Your task to perform on an android device: What's the weather? Image 0: 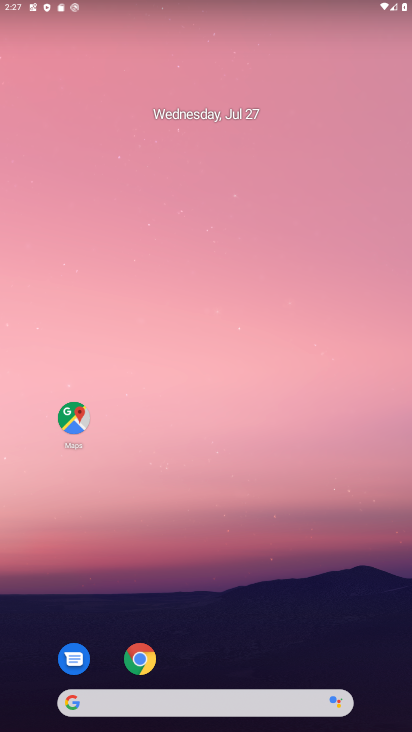
Step 0: drag from (208, 728) to (217, 124)
Your task to perform on an android device: What's the weather? Image 1: 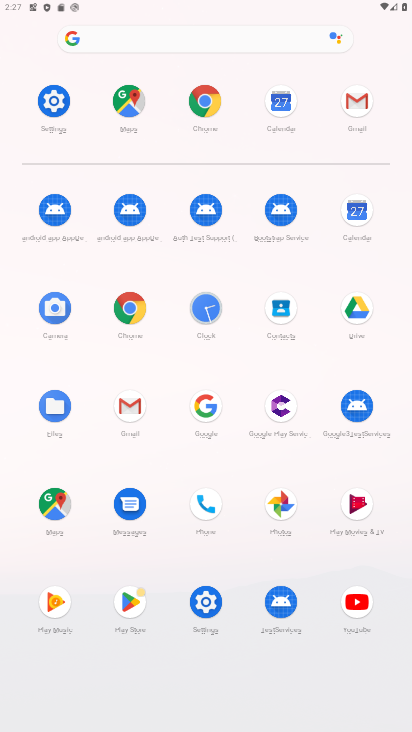
Step 1: click (200, 408)
Your task to perform on an android device: What's the weather? Image 2: 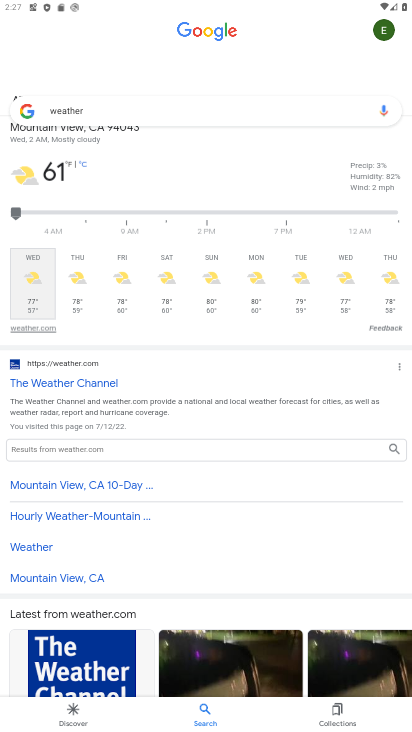
Step 2: task complete